Your task to perform on an android device: set the stopwatch Image 0: 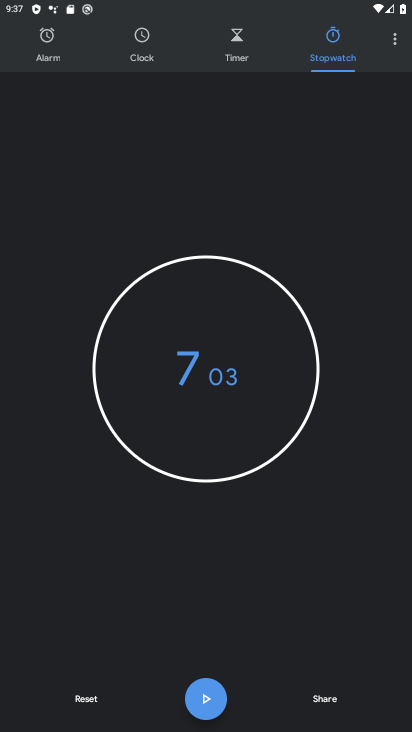
Step 0: click (203, 699)
Your task to perform on an android device: set the stopwatch Image 1: 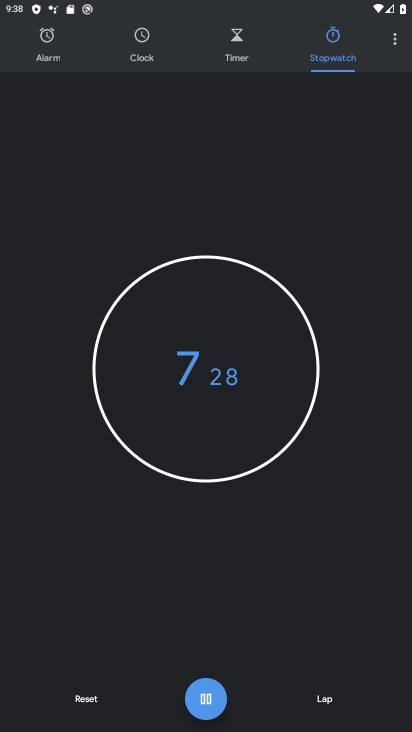
Step 1: click (203, 699)
Your task to perform on an android device: set the stopwatch Image 2: 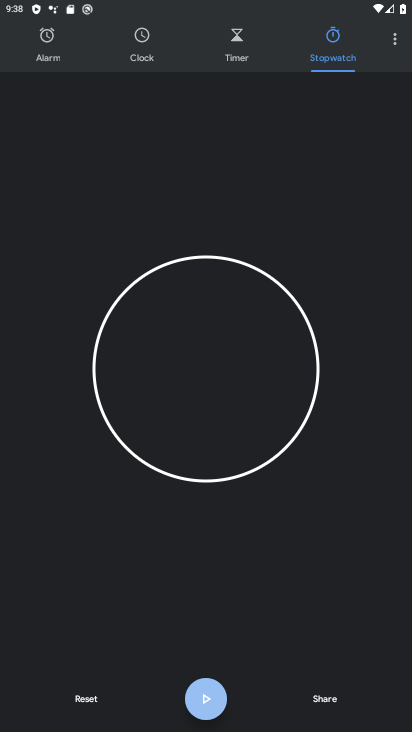
Step 2: click (198, 692)
Your task to perform on an android device: set the stopwatch Image 3: 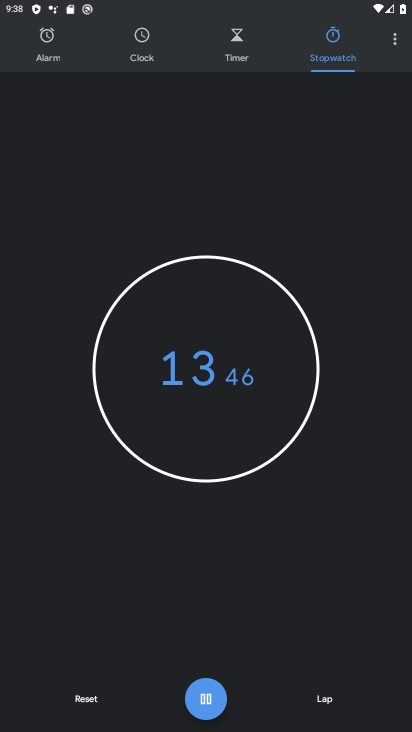
Step 3: click (200, 704)
Your task to perform on an android device: set the stopwatch Image 4: 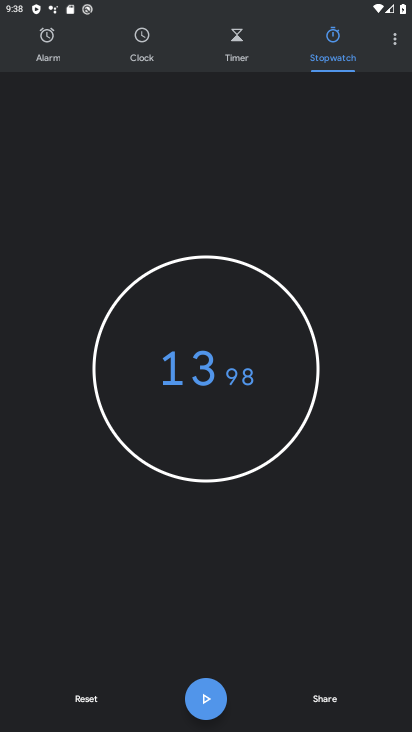
Step 4: task complete